Your task to perform on an android device: What's the weather going to be tomorrow? Image 0: 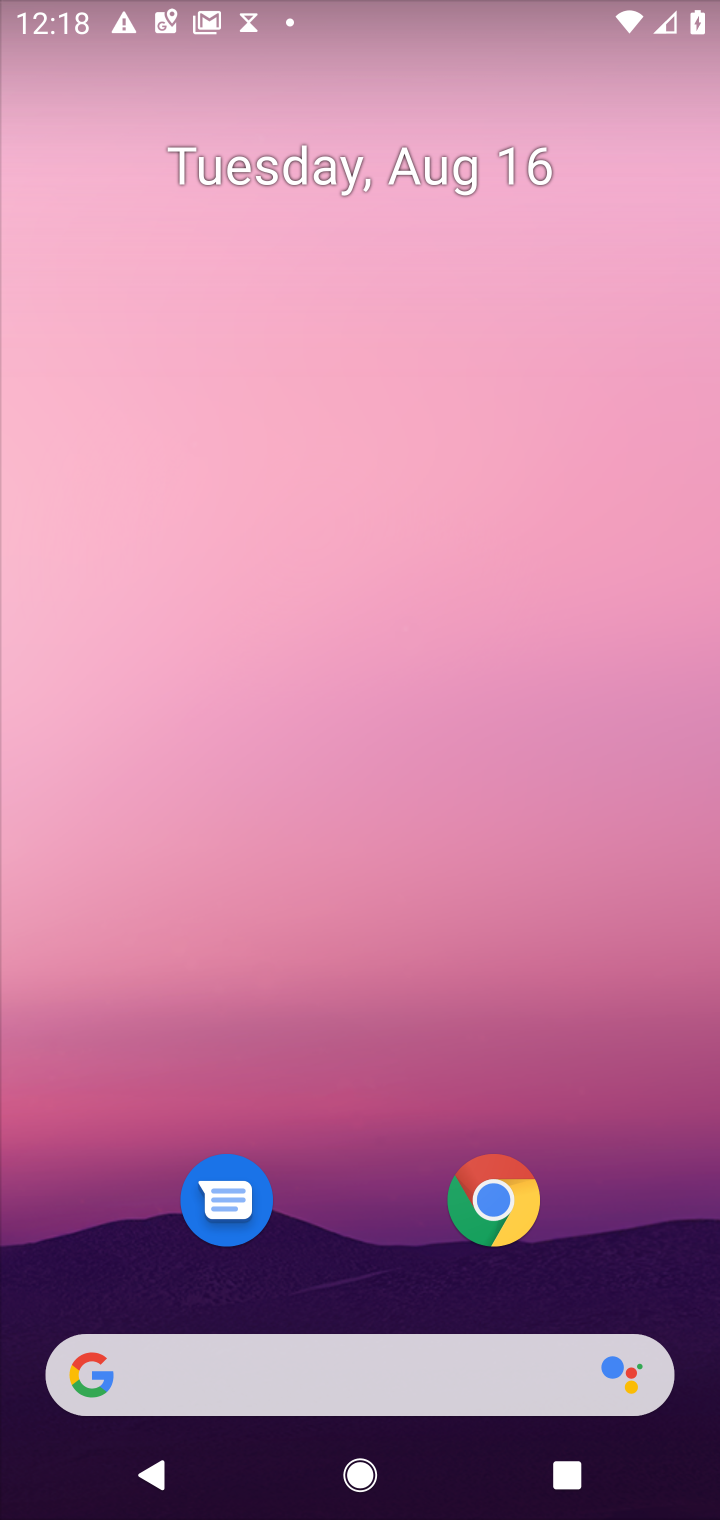
Step 0: drag from (331, 1042) to (344, 337)
Your task to perform on an android device: What's the weather going to be tomorrow? Image 1: 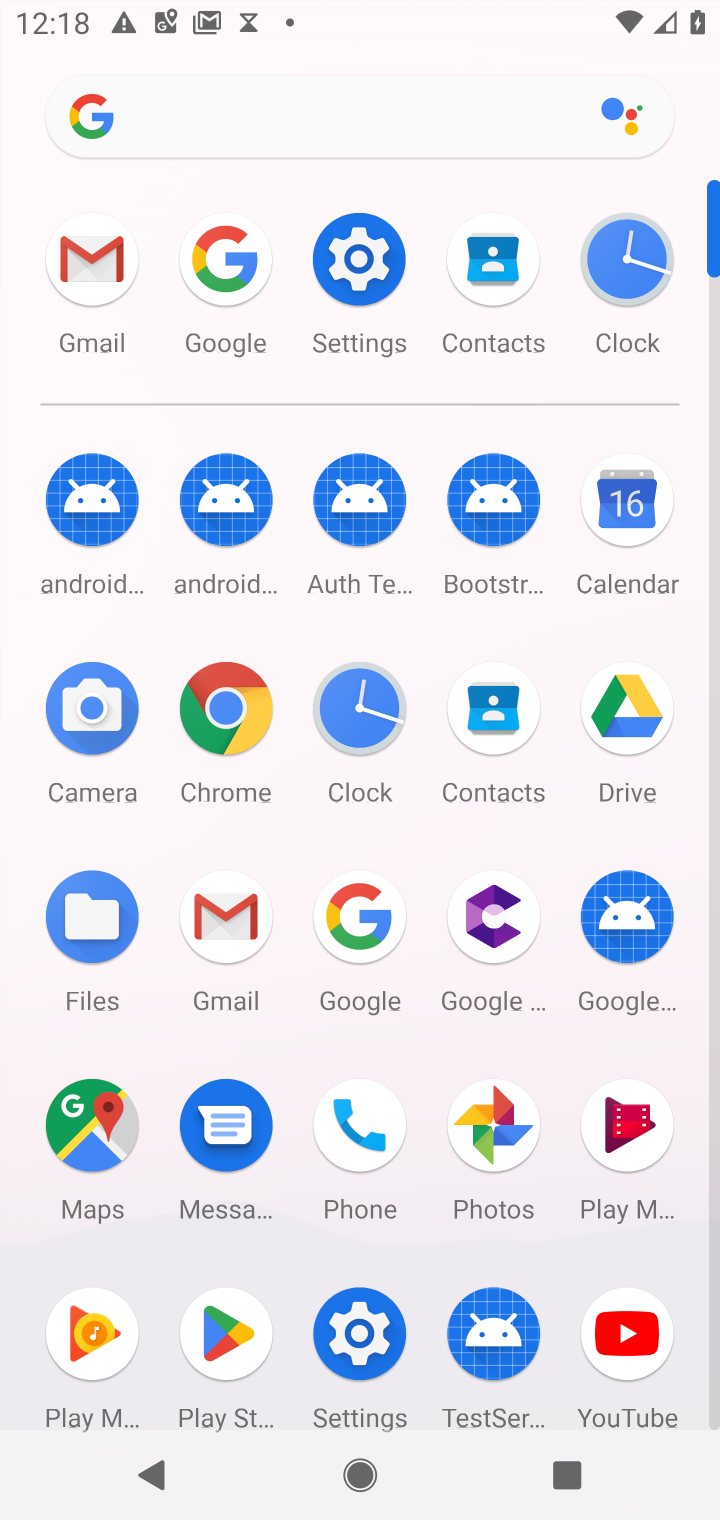
Step 1: click (197, 277)
Your task to perform on an android device: What's the weather going to be tomorrow? Image 2: 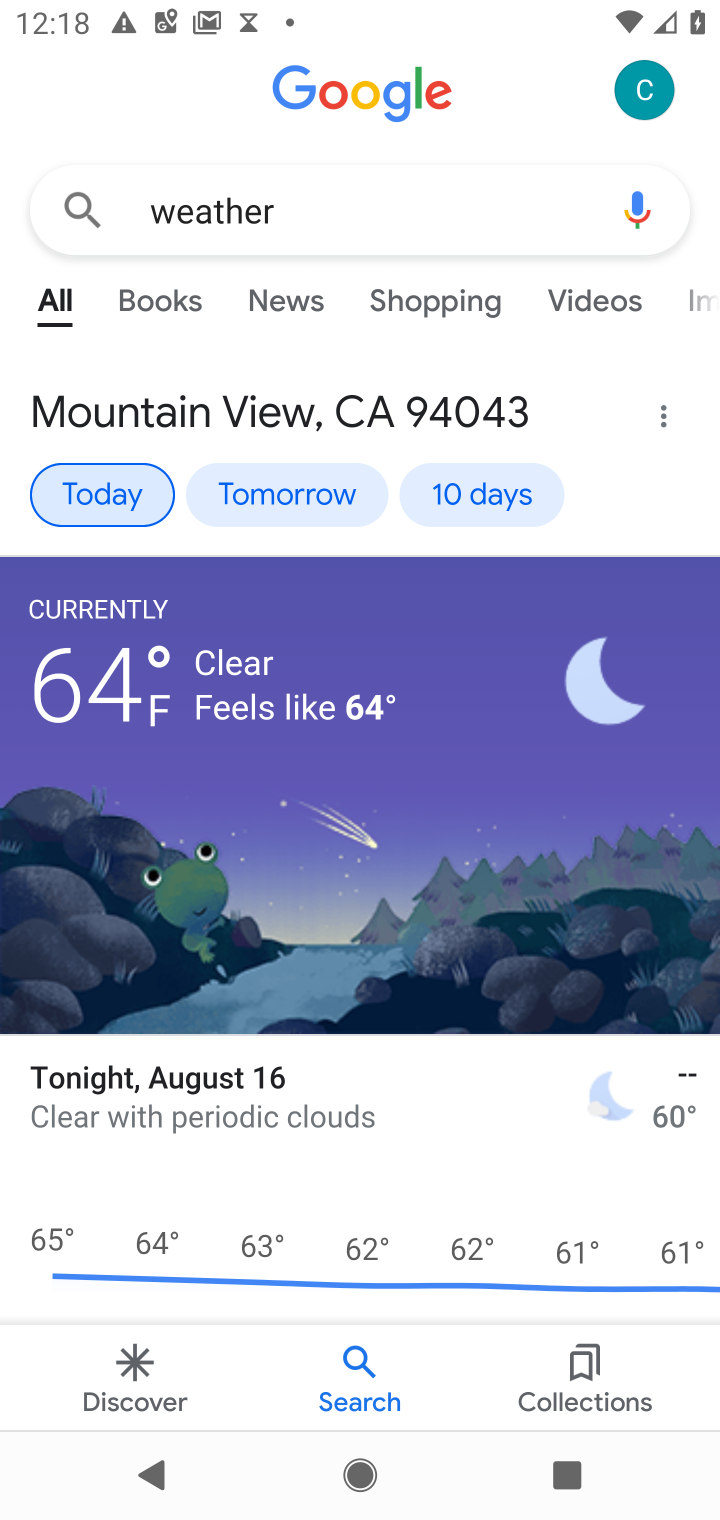
Step 2: click (283, 502)
Your task to perform on an android device: What's the weather going to be tomorrow? Image 3: 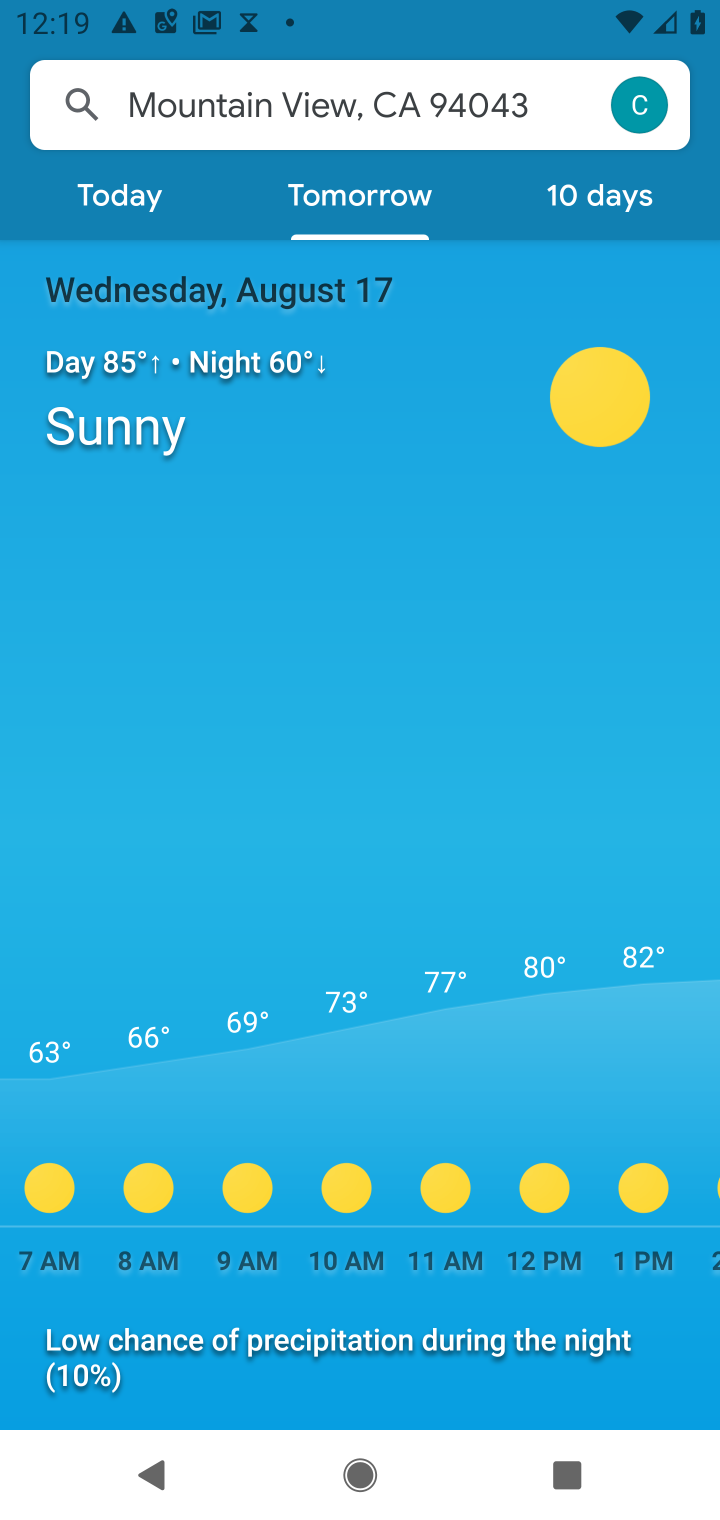
Step 3: task complete